Your task to perform on an android device: Do I have any events today? Image 0: 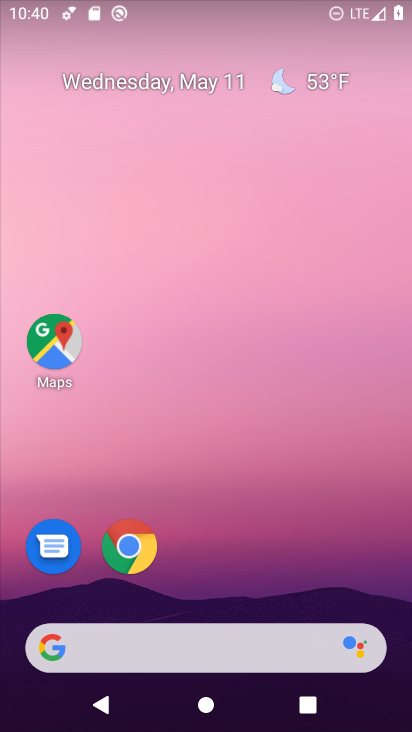
Step 0: drag from (397, 619) to (264, 7)
Your task to perform on an android device: Do I have any events today? Image 1: 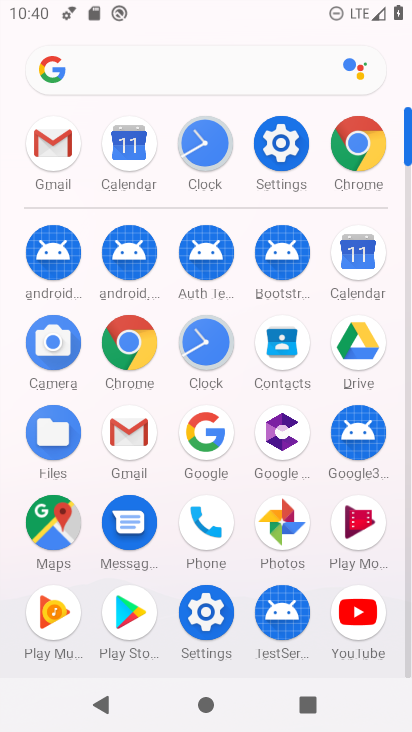
Step 1: click (381, 257)
Your task to perform on an android device: Do I have any events today? Image 2: 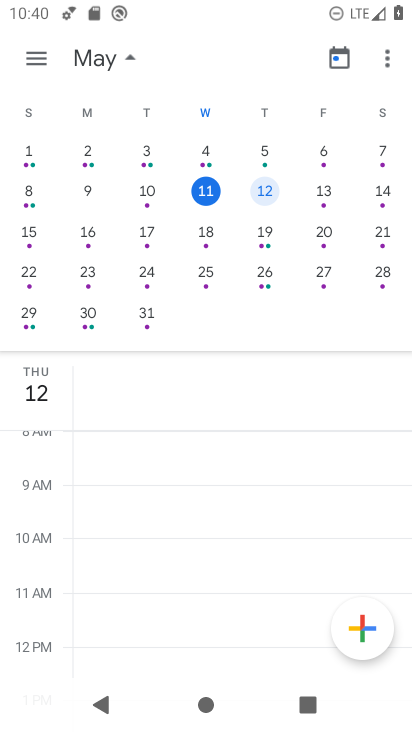
Step 2: click (253, 192)
Your task to perform on an android device: Do I have any events today? Image 3: 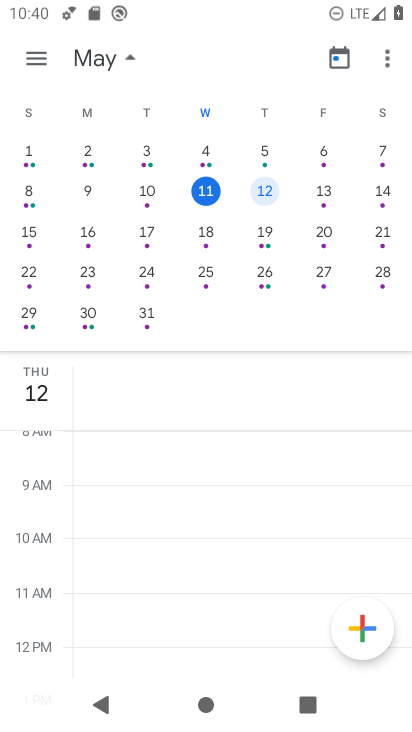
Step 3: task complete